Your task to perform on an android device: turn off location Image 0: 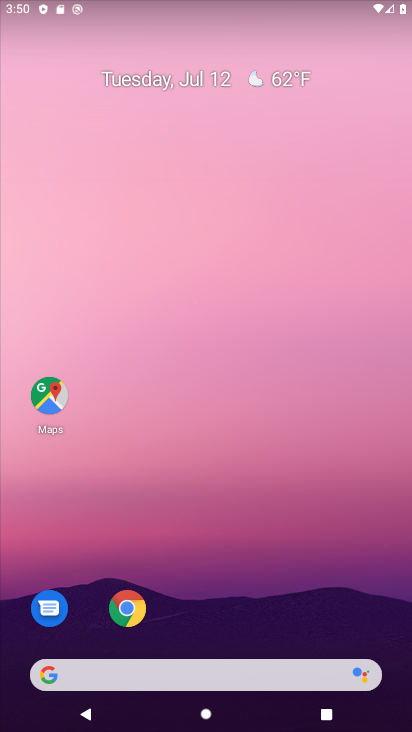
Step 0: drag from (257, 609) to (341, 116)
Your task to perform on an android device: turn off location Image 1: 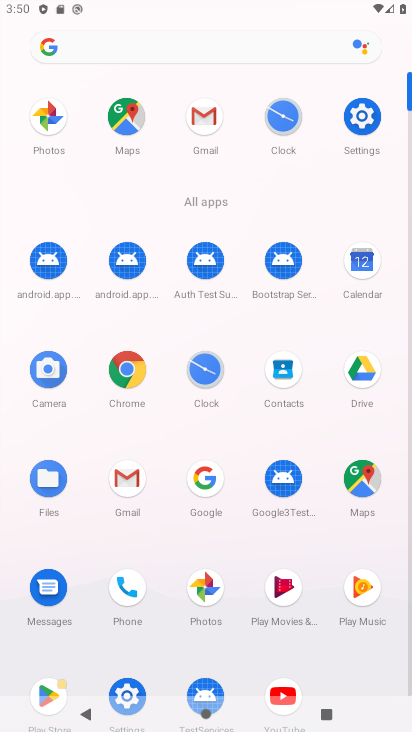
Step 1: click (122, 682)
Your task to perform on an android device: turn off location Image 2: 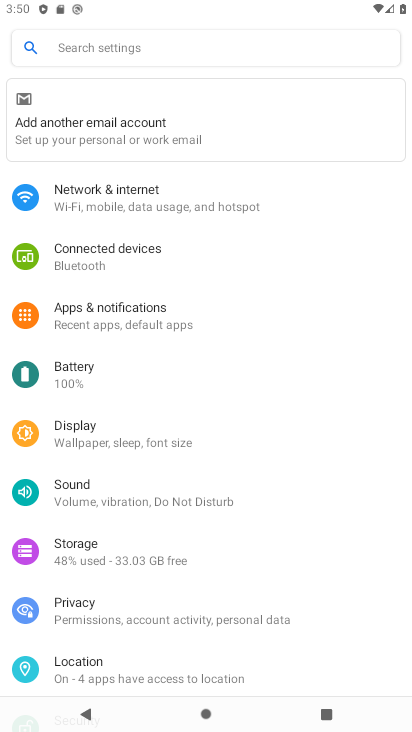
Step 2: drag from (75, 561) to (141, 366)
Your task to perform on an android device: turn off location Image 3: 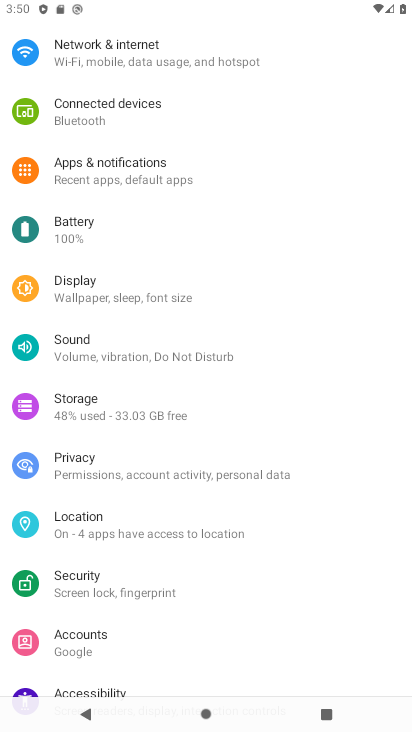
Step 3: click (95, 512)
Your task to perform on an android device: turn off location Image 4: 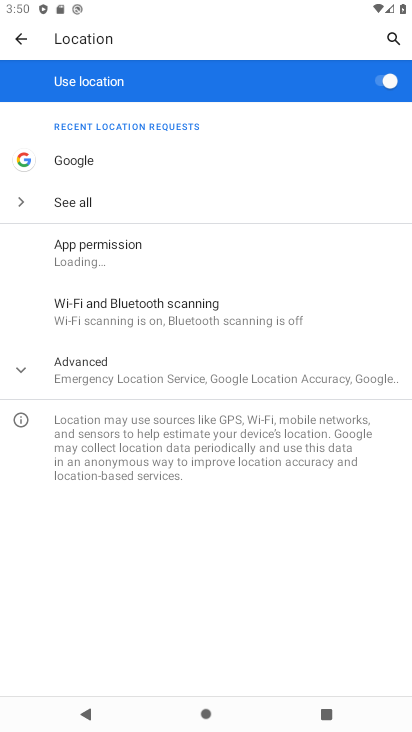
Step 4: click (371, 78)
Your task to perform on an android device: turn off location Image 5: 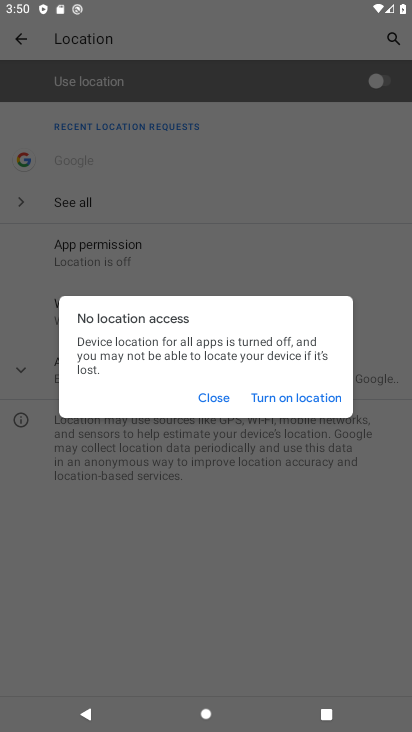
Step 5: click (218, 403)
Your task to perform on an android device: turn off location Image 6: 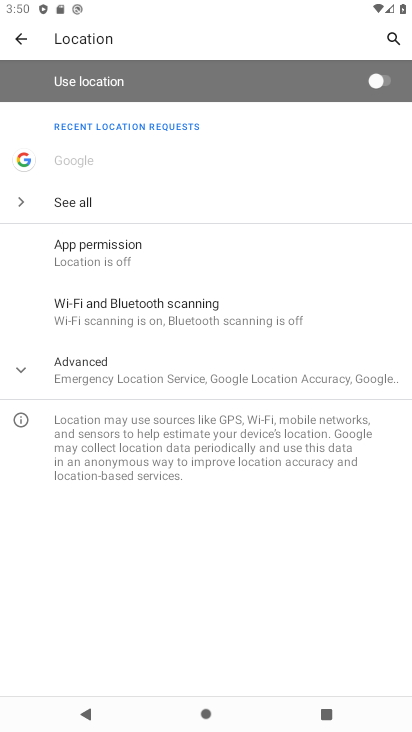
Step 6: task complete